Your task to perform on an android device: toggle notification dots Image 0: 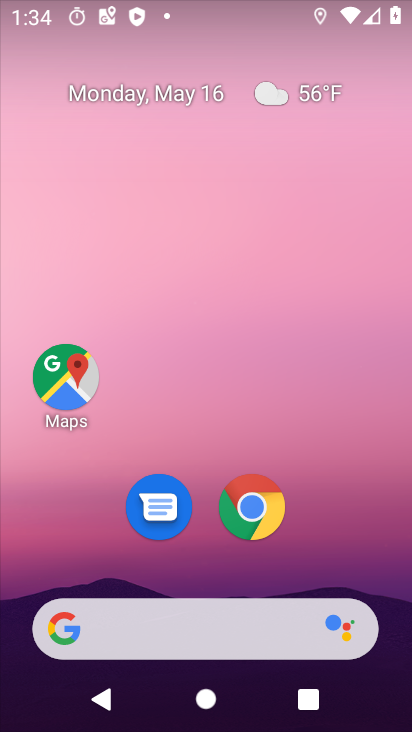
Step 0: drag from (200, 567) to (194, 119)
Your task to perform on an android device: toggle notification dots Image 1: 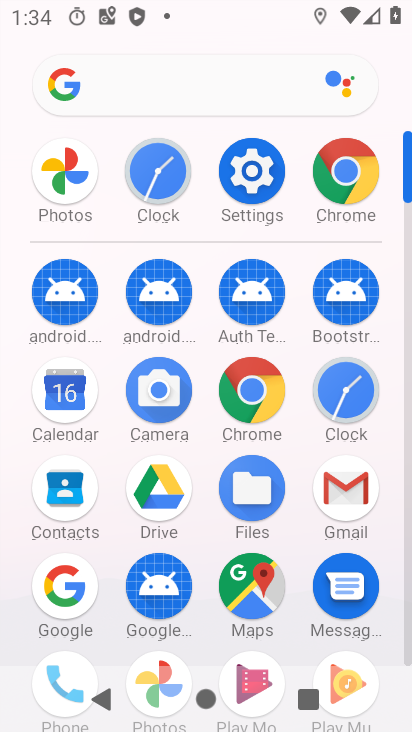
Step 1: click (254, 169)
Your task to perform on an android device: toggle notification dots Image 2: 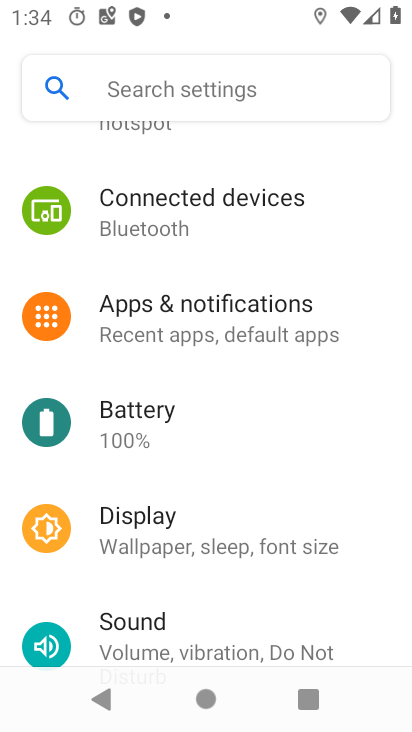
Step 2: click (203, 302)
Your task to perform on an android device: toggle notification dots Image 3: 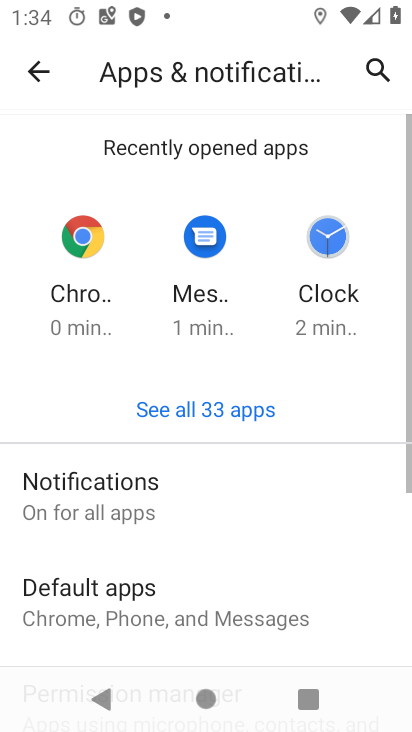
Step 3: click (152, 494)
Your task to perform on an android device: toggle notification dots Image 4: 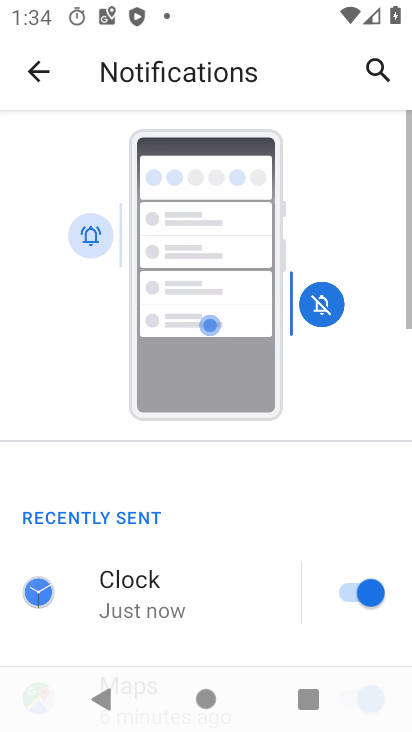
Step 4: drag from (278, 534) to (290, 21)
Your task to perform on an android device: toggle notification dots Image 5: 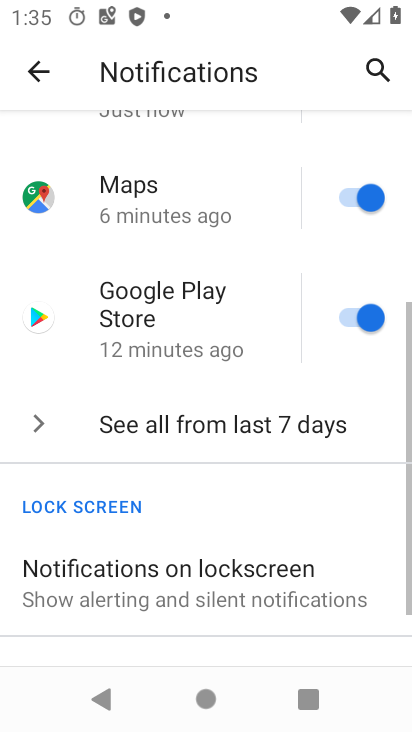
Step 5: drag from (244, 619) to (232, 272)
Your task to perform on an android device: toggle notification dots Image 6: 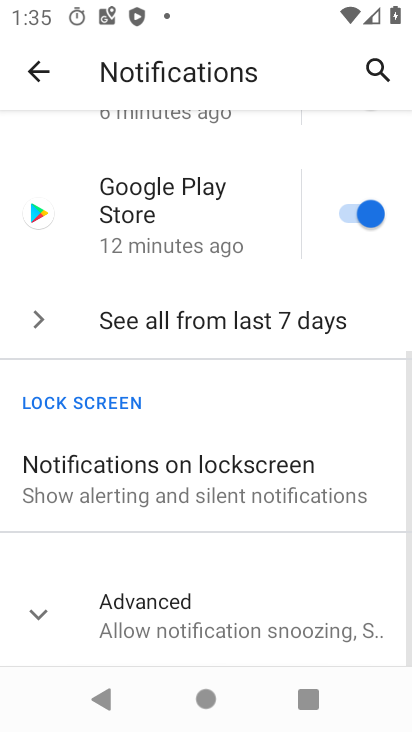
Step 6: click (170, 617)
Your task to perform on an android device: toggle notification dots Image 7: 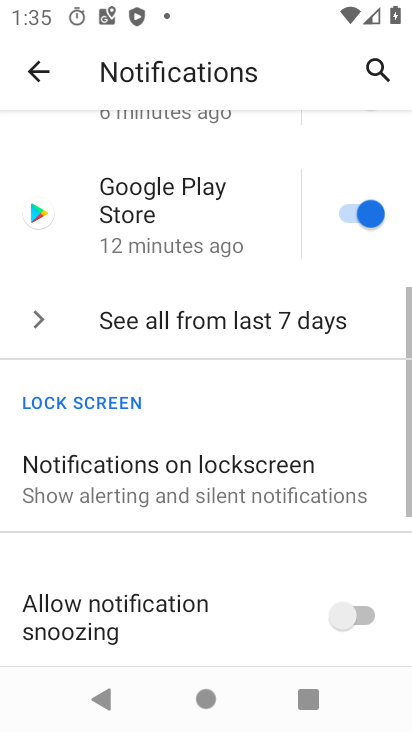
Step 7: drag from (188, 604) to (222, 211)
Your task to perform on an android device: toggle notification dots Image 8: 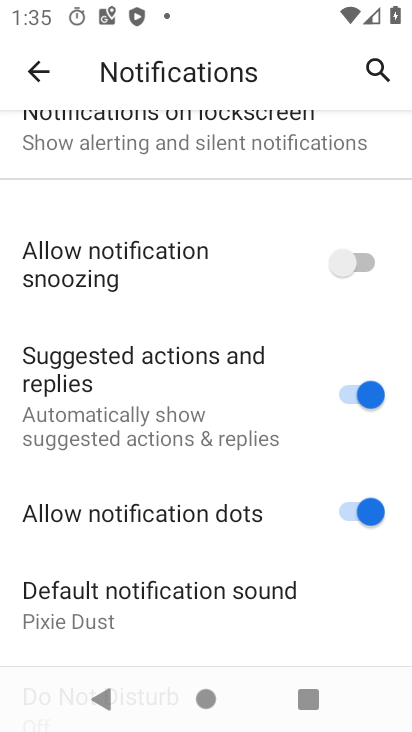
Step 8: click (351, 510)
Your task to perform on an android device: toggle notification dots Image 9: 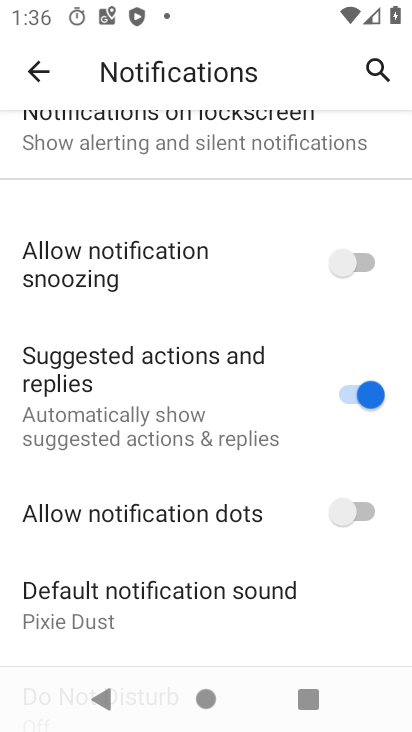
Step 9: task complete